Your task to perform on an android device: change notification settings in the gmail app Image 0: 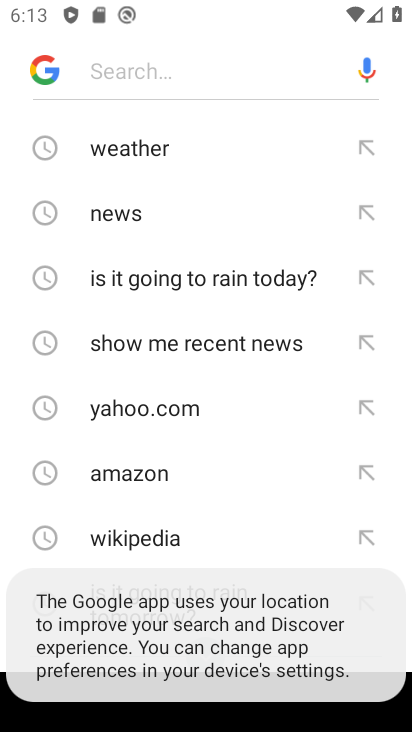
Step 0: press back button
Your task to perform on an android device: change notification settings in the gmail app Image 1: 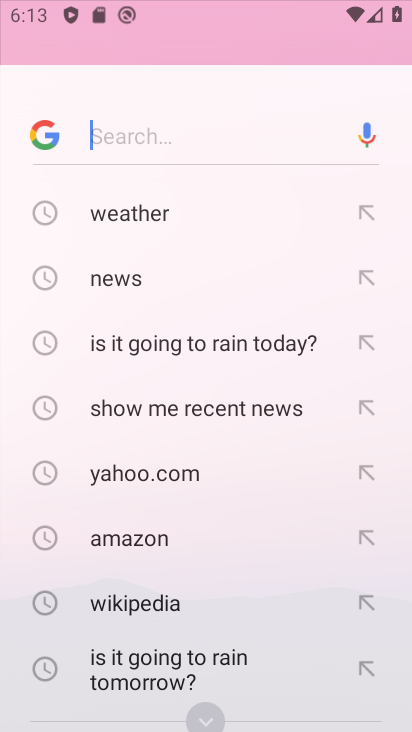
Step 1: press home button
Your task to perform on an android device: change notification settings in the gmail app Image 2: 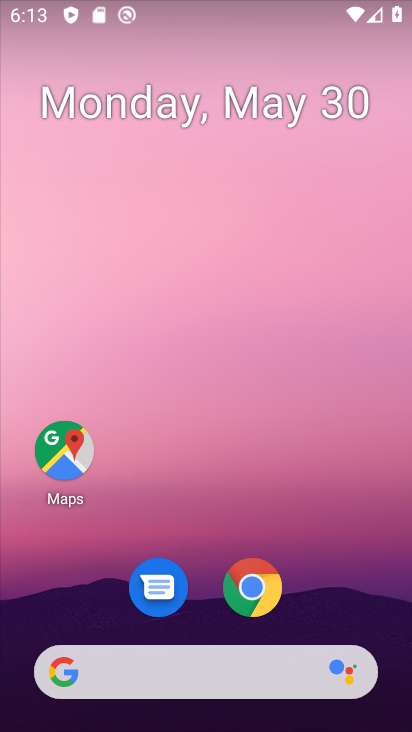
Step 2: drag from (312, 600) to (210, 5)
Your task to perform on an android device: change notification settings in the gmail app Image 3: 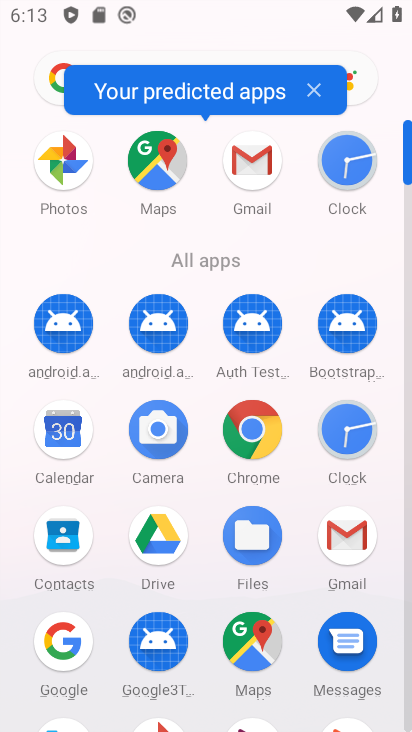
Step 3: click (249, 157)
Your task to perform on an android device: change notification settings in the gmail app Image 4: 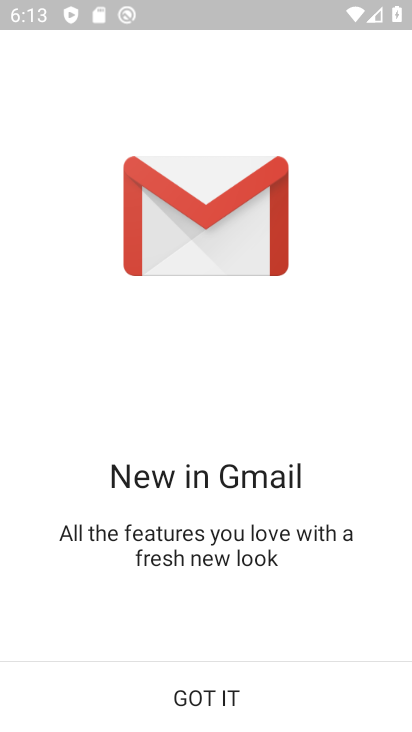
Step 4: click (207, 689)
Your task to perform on an android device: change notification settings in the gmail app Image 5: 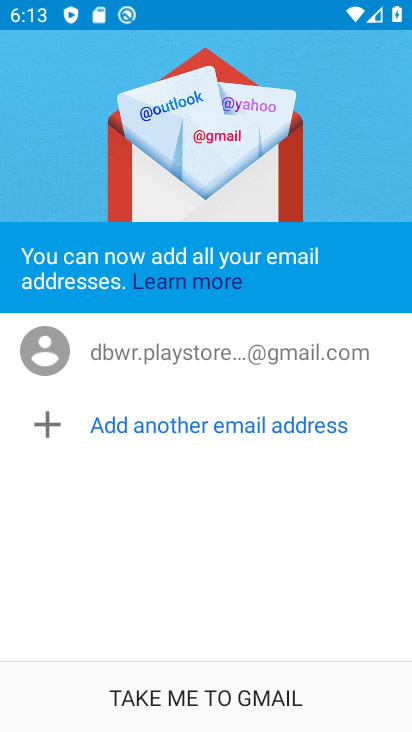
Step 5: click (207, 688)
Your task to perform on an android device: change notification settings in the gmail app Image 6: 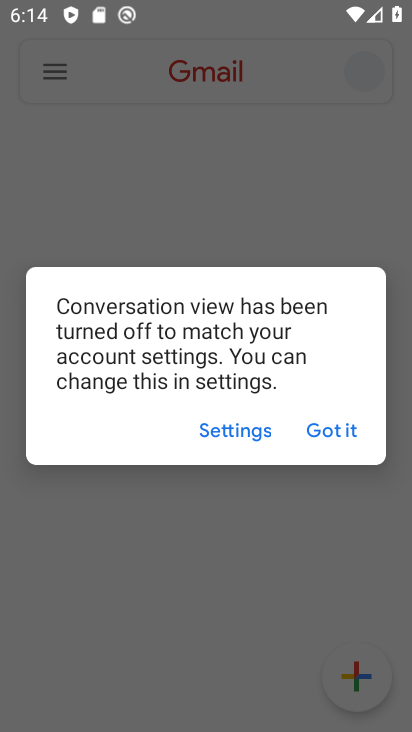
Step 6: click (349, 425)
Your task to perform on an android device: change notification settings in the gmail app Image 7: 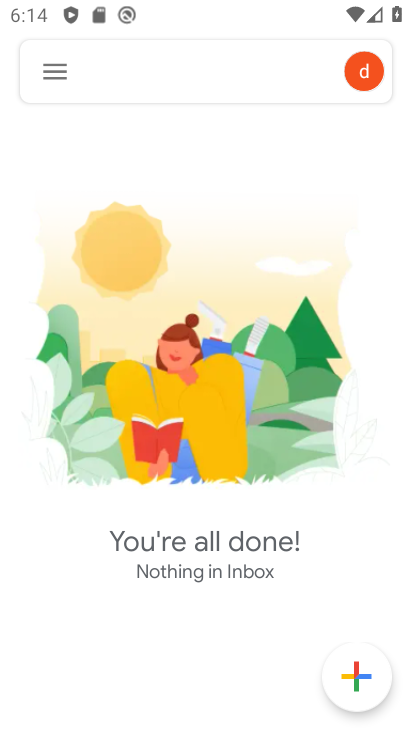
Step 7: click (48, 54)
Your task to perform on an android device: change notification settings in the gmail app Image 8: 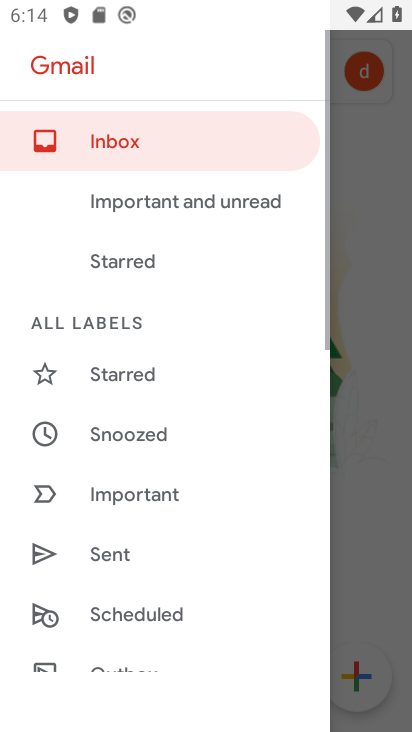
Step 8: drag from (173, 554) to (184, 136)
Your task to perform on an android device: change notification settings in the gmail app Image 9: 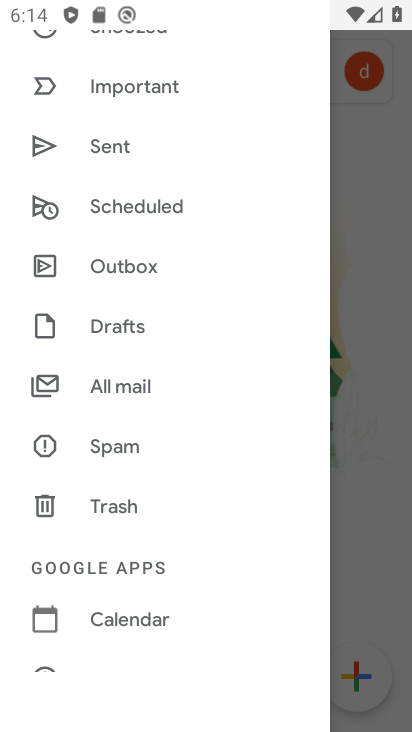
Step 9: drag from (188, 615) to (195, 153)
Your task to perform on an android device: change notification settings in the gmail app Image 10: 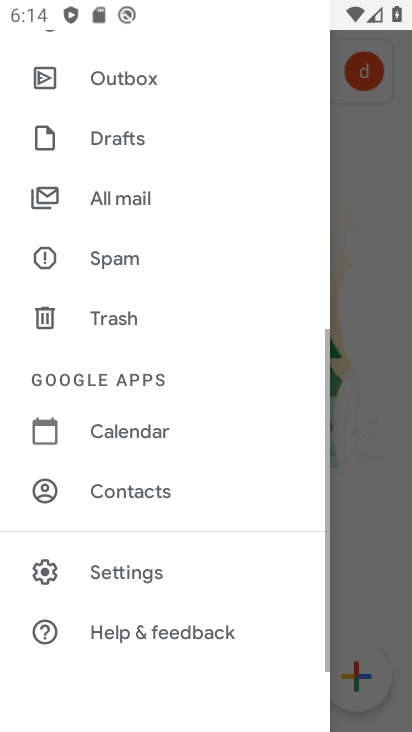
Step 10: click (138, 560)
Your task to perform on an android device: change notification settings in the gmail app Image 11: 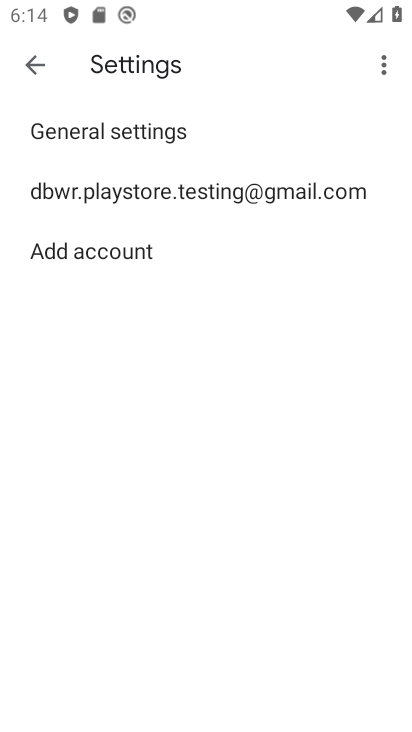
Step 11: click (208, 191)
Your task to perform on an android device: change notification settings in the gmail app Image 12: 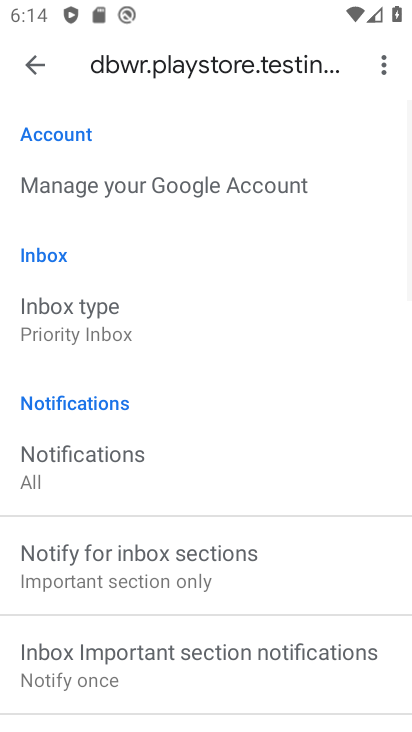
Step 12: drag from (259, 477) to (257, 148)
Your task to perform on an android device: change notification settings in the gmail app Image 13: 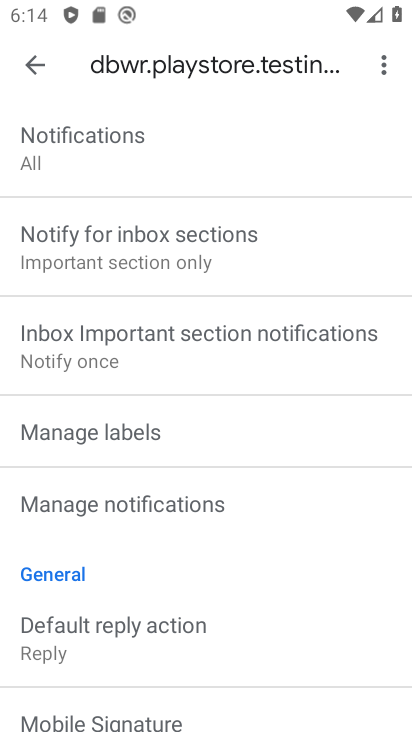
Step 13: drag from (271, 519) to (282, 105)
Your task to perform on an android device: change notification settings in the gmail app Image 14: 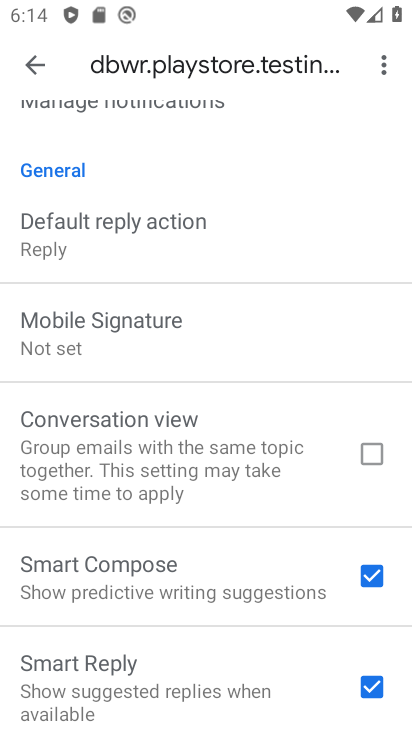
Step 14: drag from (263, 188) to (220, 470)
Your task to perform on an android device: change notification settings in the gmail app Image 15: 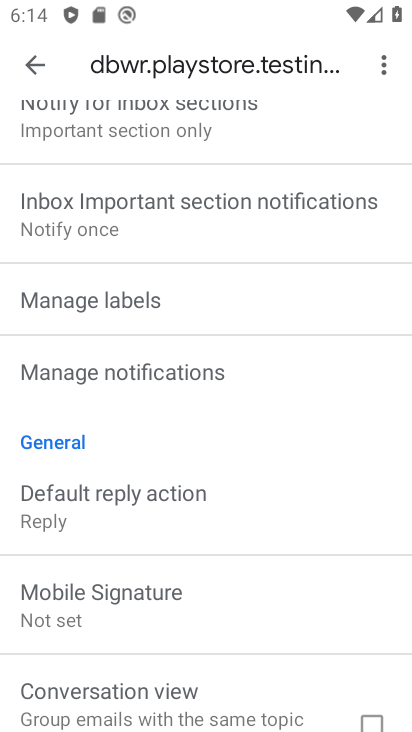
Step 15: click (144, 367)
Your task to perform on an android device: change notification settings in the gmail app Image 16: 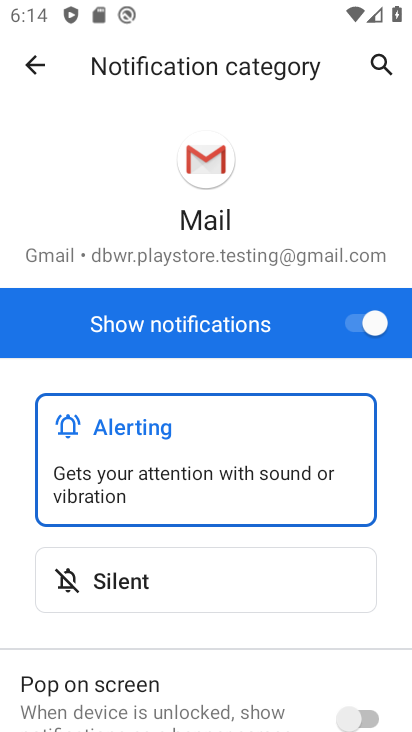
Step 16: drag from (275, 635) to (286, 131)
Your task to perform on an android device: change notification settings in the gmail app Image 17: 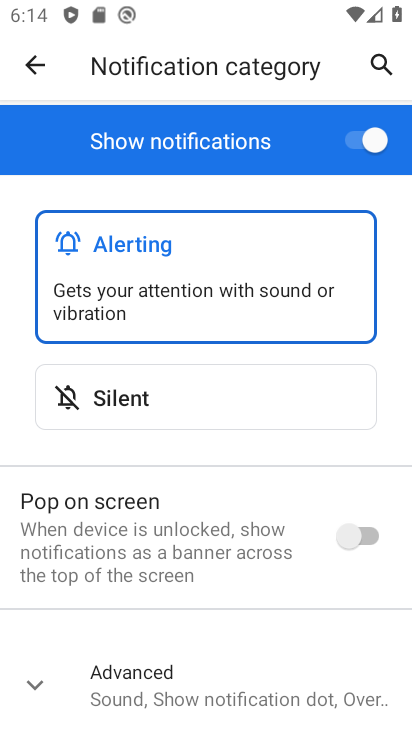
Step 17: drag from (274, 567) to (267, 109)
Your task to perform on an android device: change notification settings in the gmail app Image 18: 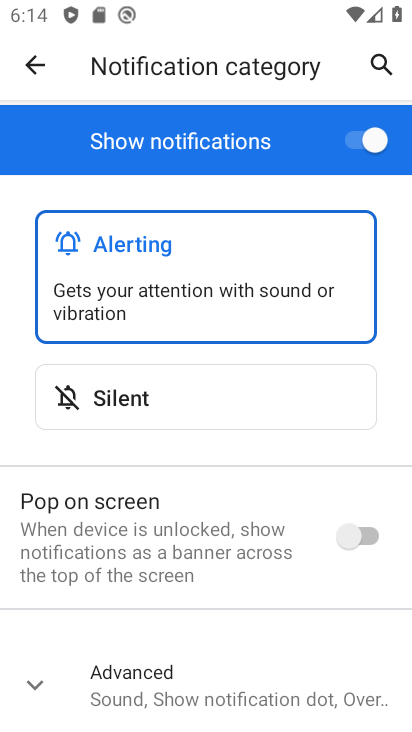
Step 18: click (133, 675)
Your task to perform on an android device: change notification settings in the gmail app Image 19: 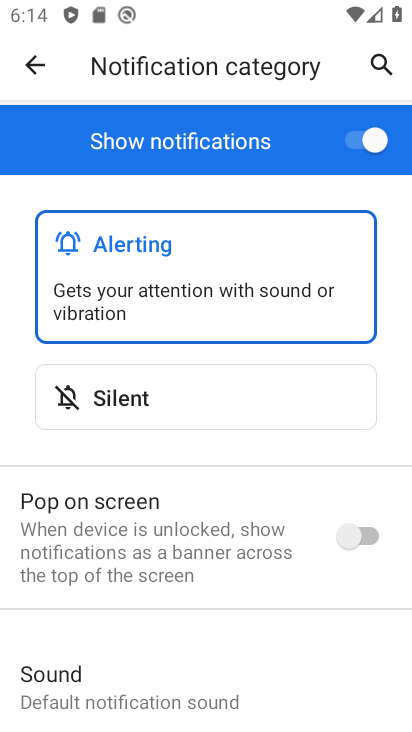
Step 19: drag from (173, 633) to (197, 201)
Your task to perform on an android device: change notification settings in the gmail app Image 20: 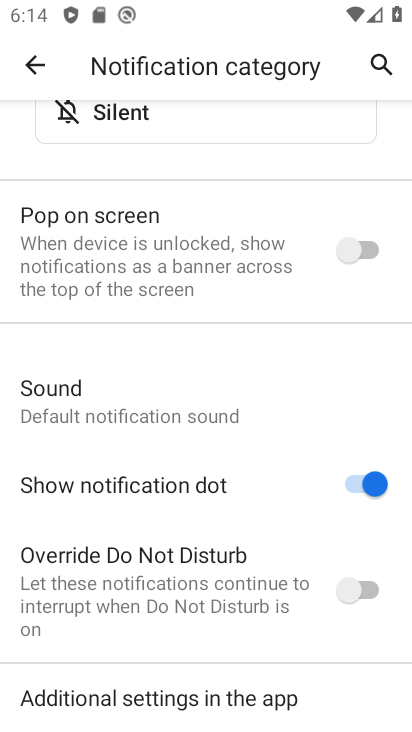
Step 20: drag from (283, 622) to (241, 107)
Your task to perform on an android device: change notification settings in the gmail app Image 21: 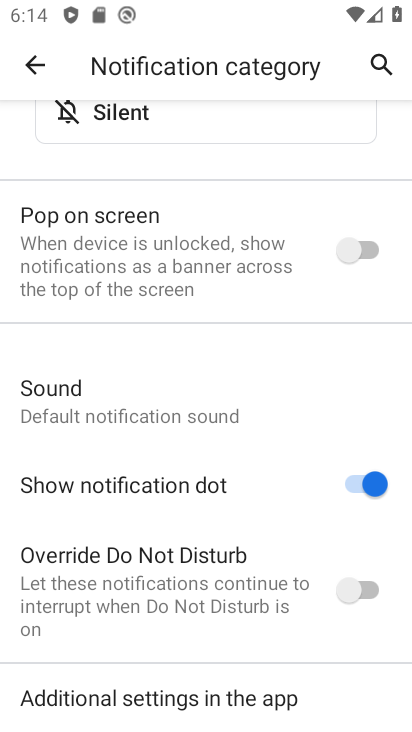
Step 21: drag from (229, 385) to (228, 83)
Your task to perform on an android device: change notification settings in the gmail app Image 22: 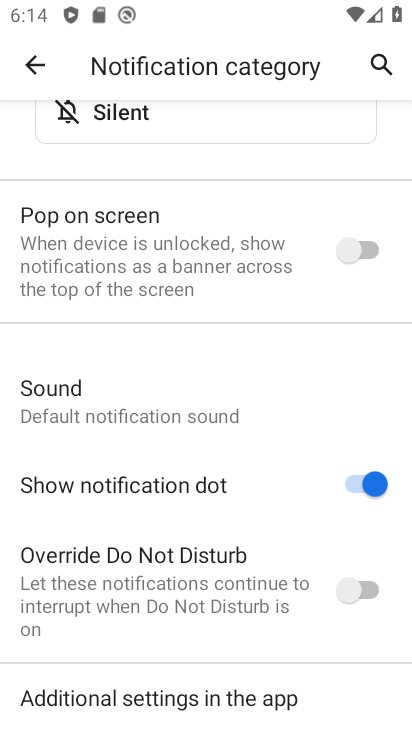
Step 22: drag from (224, 565) to (204, 139)
Your task to perform on an android device: change notification settings in the gmail app Image 23: 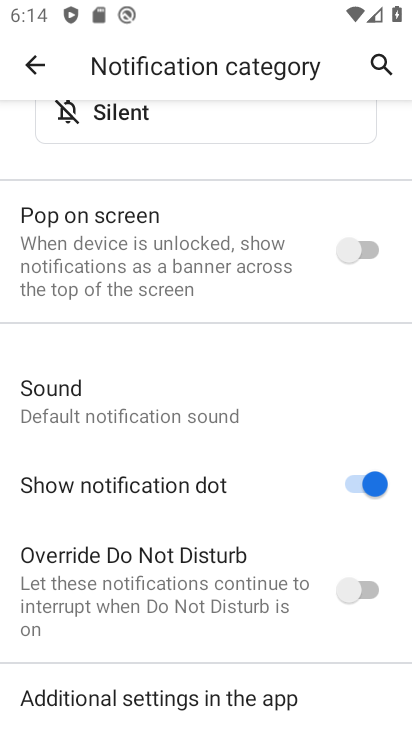
Step 23: click (31, 54)
Your task to perform on an android device: change notification settings in the gmail app Image 24: 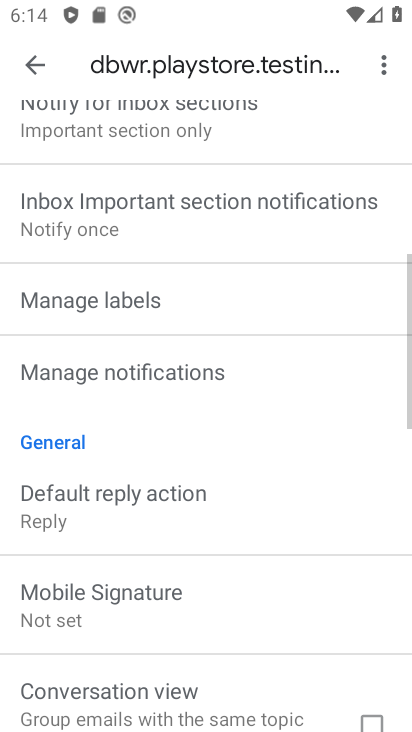
Step 24: click (183, 372)
Your task to perform on an android device: change notification settings in the gmail app Image 25: 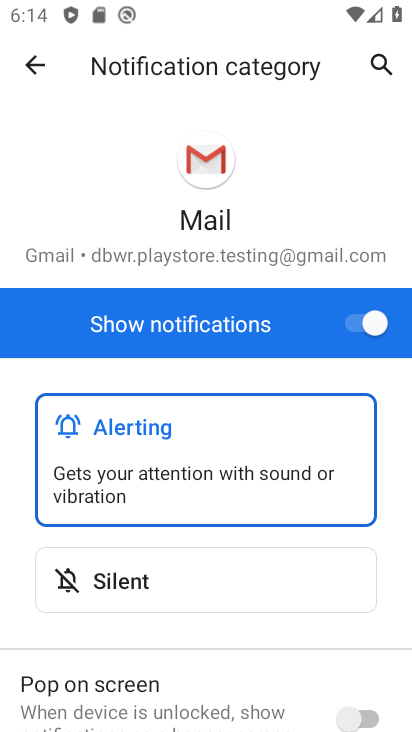
Step 25: click (369, 314)
Your task to perform on an android device: change notification settings in the gmail app Image 26: 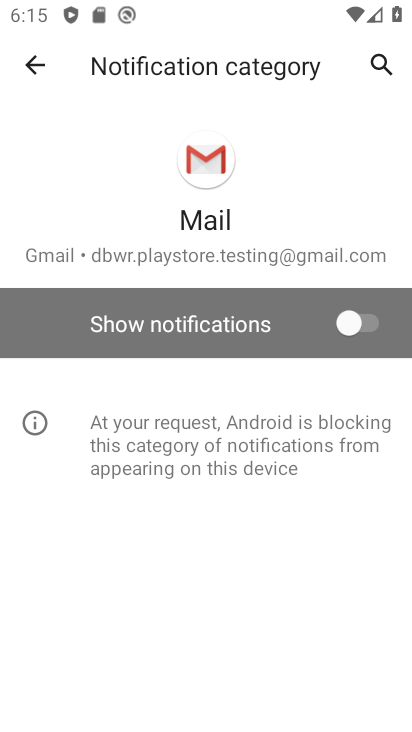
Step 26: task complete